Your task to perform on an android device: turn off notifications settings in the gmail app Image 0: 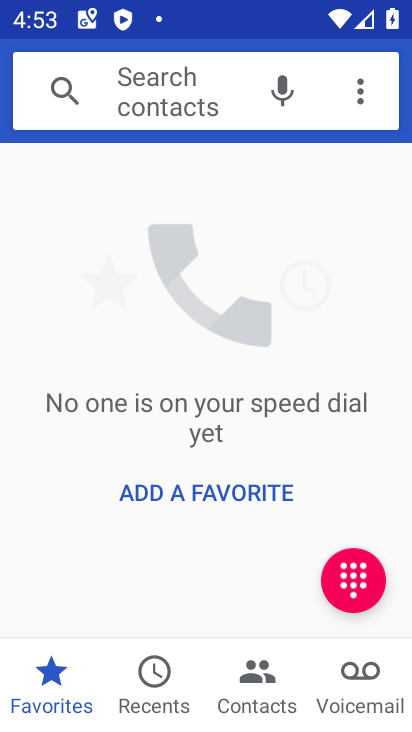
Step 0: press back button
Your task to perform on an android device: turn off notifications settings in the gmail app Image 1: 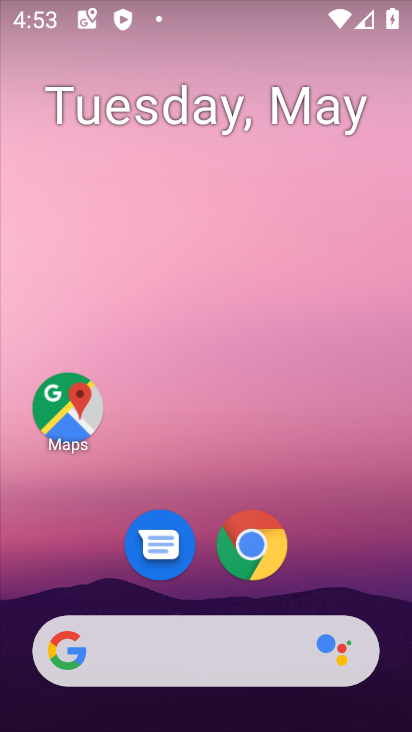
Step 1: drag from (363, 572) to (239, 13)
Your task to perform on an android device: turn off notifications settings in the gmail app Image 2: 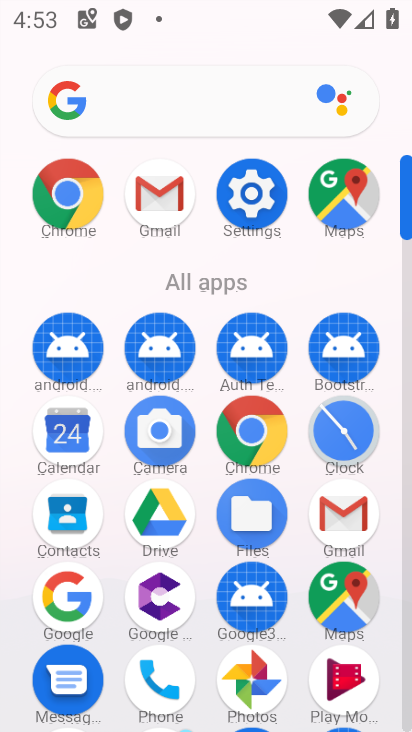
Step 2: drag from (23, 621) to (29, 276)
Your task to perform on an android device: turn off notifications settings in the gmail app Image 3: 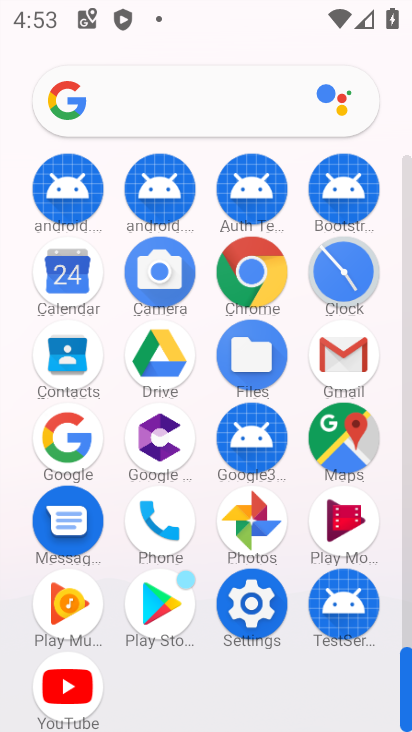
Step 3: click (347, 347)
Your task to perform on an android device: turn off notifications settings in the gmail app Image 4: 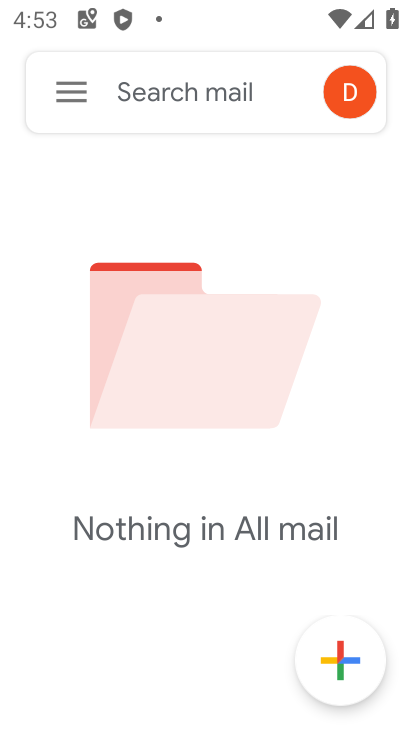
Step 4: click (85, 103)
Your task to perform on an android device: turn off notifications settings in the gmail app Image 5: 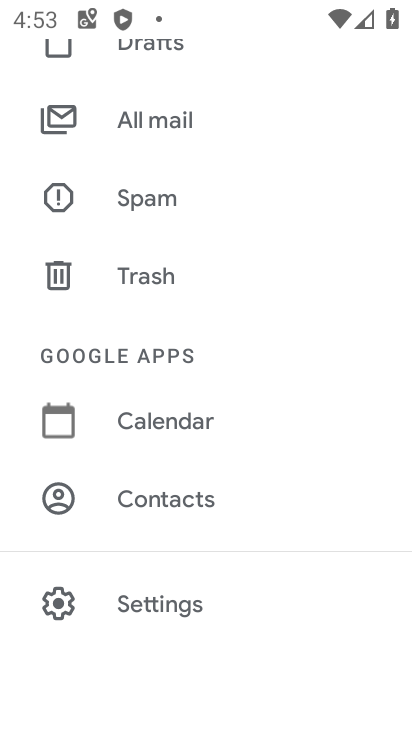
Step 5: click (139, 606)
Your task to perform on an android device: turn off notifications settings in the gmail app Image 6: 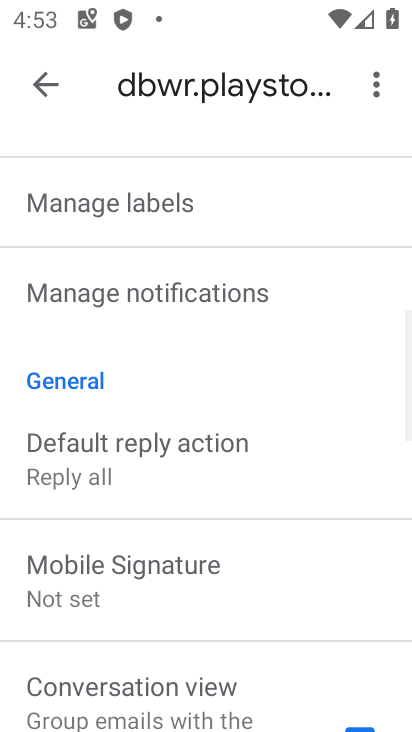
Step 6: drag from (246, 254) to (262, 646)
Your task to perform on an android device: turn off notifications settings in the gmail app Image 7: 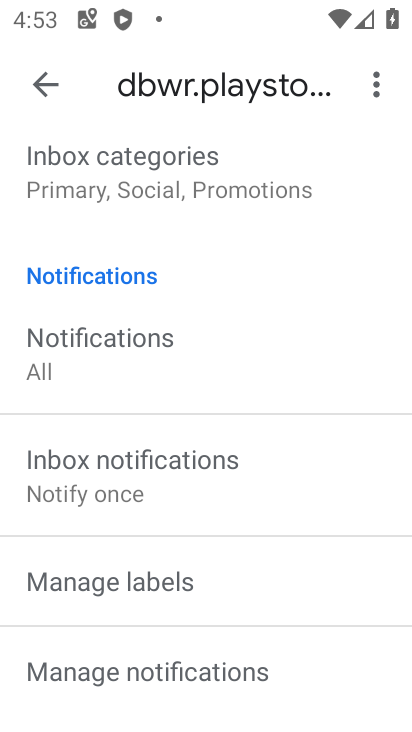
Step 7: drag from (224, 264) to (207, 668)
Your task to perform on an android device: turn off notifications settings in the gmail app Image 8: 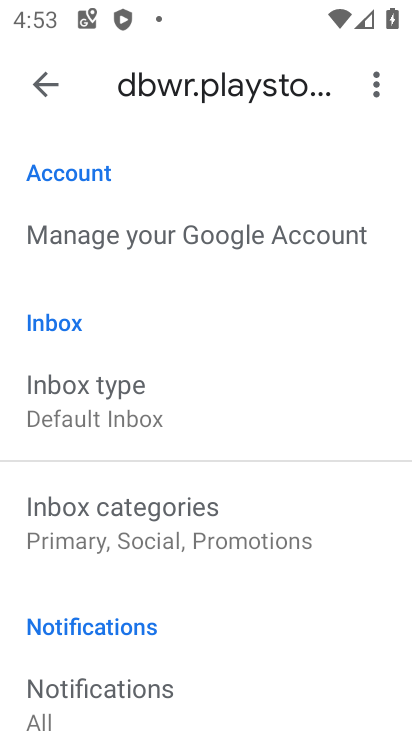
Step 8: drag from (207, 288) to (212, 560)
Your task to perform on an android device: turn off notifications settings in the gmail app Image 9: 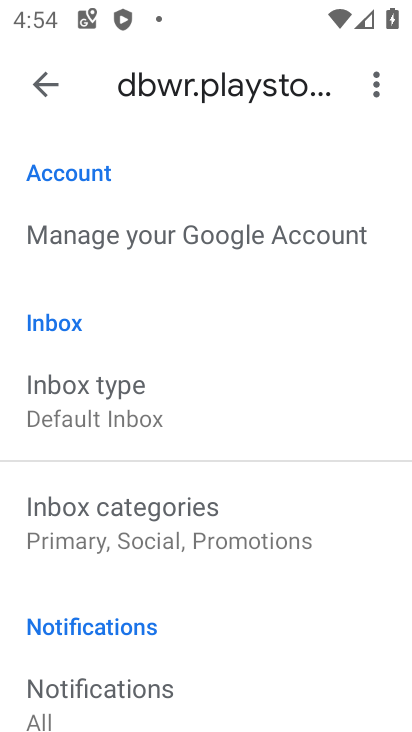
Step 9: drag from (211, 420) to (250, 169)
Your task to perform on an android device: turn off notifications settings in the gmail app Image 10: 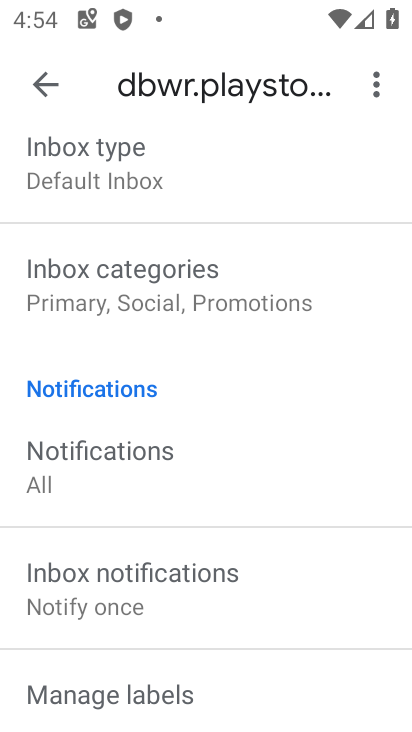
Step 10: drag from (246, 600) to (278, 211)
Your task to perform on an android device: turn off notifications settings in the gmail app Image 11: 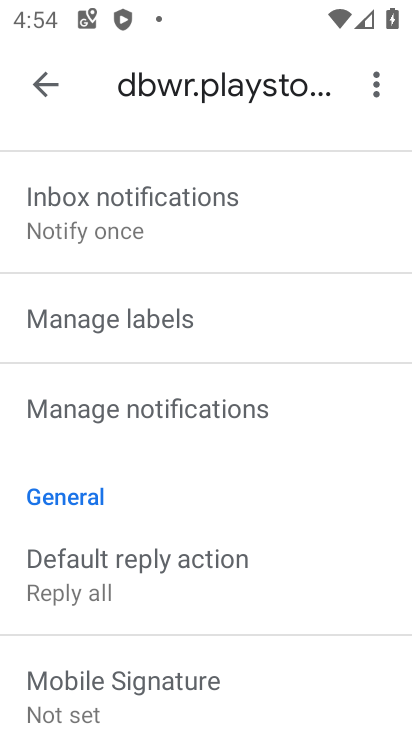
Step 11: drag from (230, 586) to (262, 227)
Your task to perform on an android device: turn off notifications settings in the gmail app Image 12: 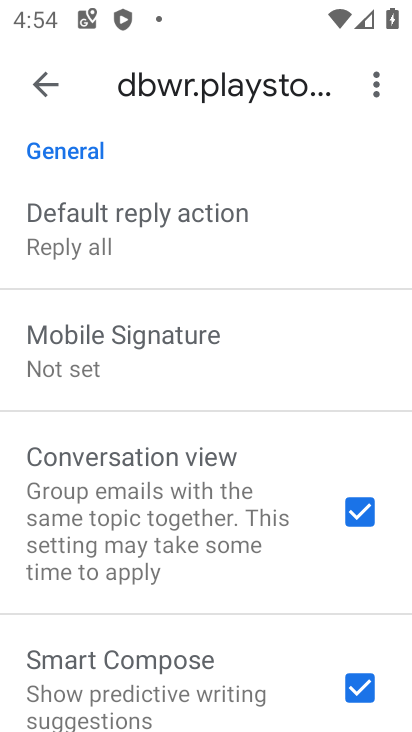
Step 12: drag from (145, 588) to (227, 221)
Your task to perform on an android device: turn off notifications settings in the gmail app Image 13: 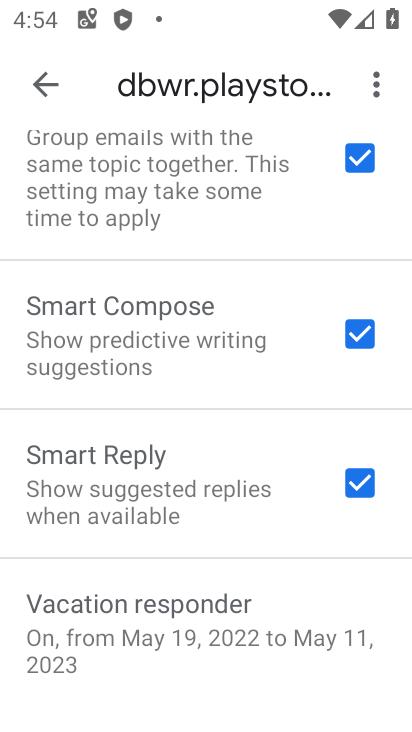
Step 13: drag from (185, 628) to (199, 161)
Your task to perform on an android device: turn off notifications settings in the gmail app Image 14: 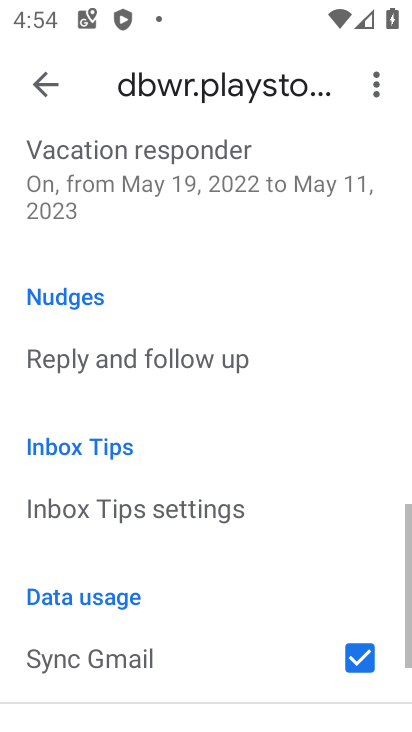
Step 14: drag from (143, 638) to (187, 199)
Your task to perform on an android device: turn off notifications settings in the gmail app Image 15: 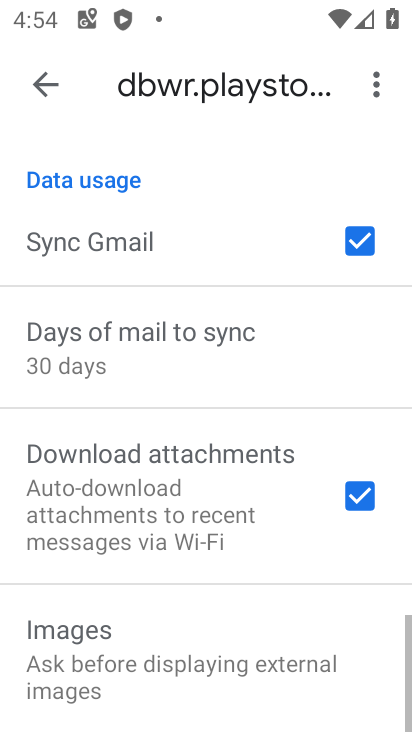
Step 15: drag from (183, 610) to (228, 245)
Your task to perform on an android device: turn off notifications settings in the gmail app Image 16: 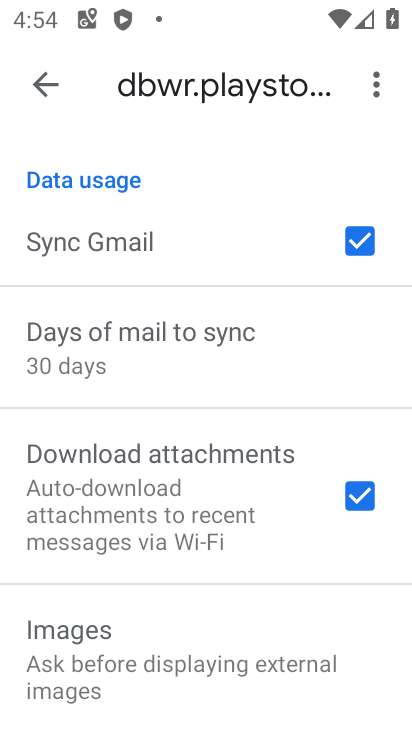
Step 16: drag from (226, 298) to (201, 675)
Your task to perform on an android device: turn off notifications settings in the gmail app Image 17: 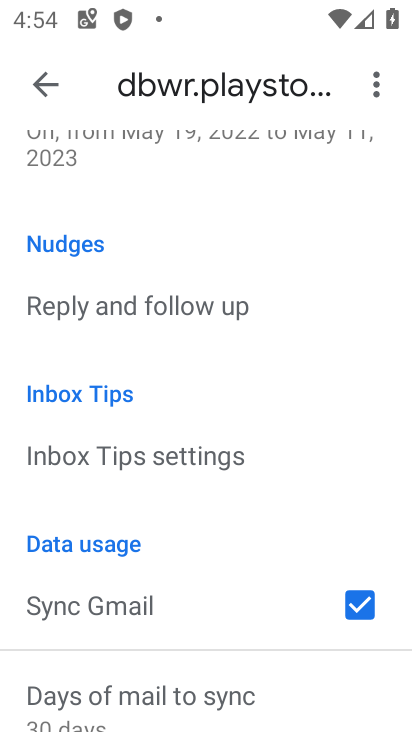
Step 17: drag from (226, 231) to (200, 634)
Your task to perform on an android device: turn off notifications settings in the gmail app Image 18: 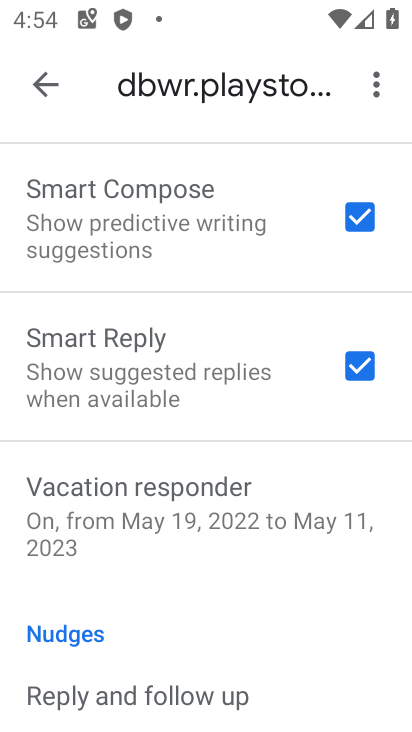
Step 18: drag from (194, 211) to (197, 648)
Your task to perform on an android device: turn off notifications settings in the gmail app Image 19: 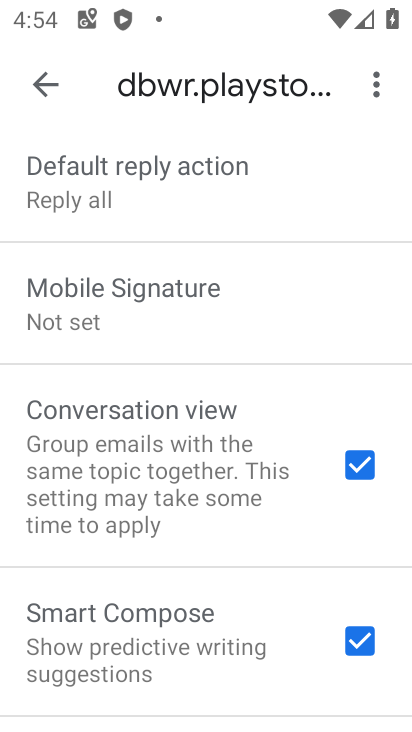
Step 19: drag from (247, 215) to (243, 700)
Your task to perform on an android device: turn off notifications settings in the gmail app Image 20: 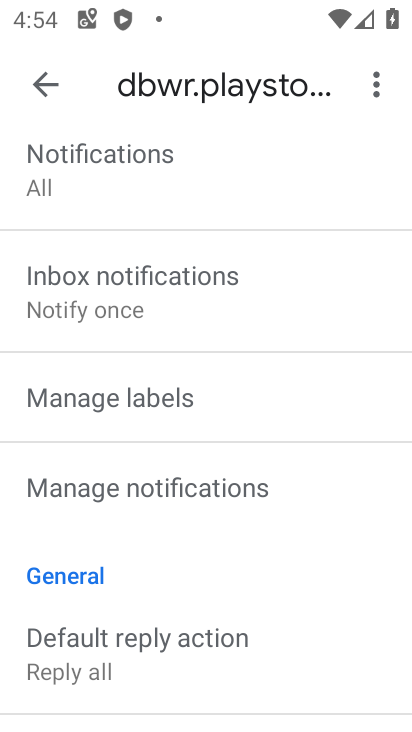
Step 20: click (202, 485)
Your task to perform on an android device: turn off notifications settings in the gmail app Image 21: 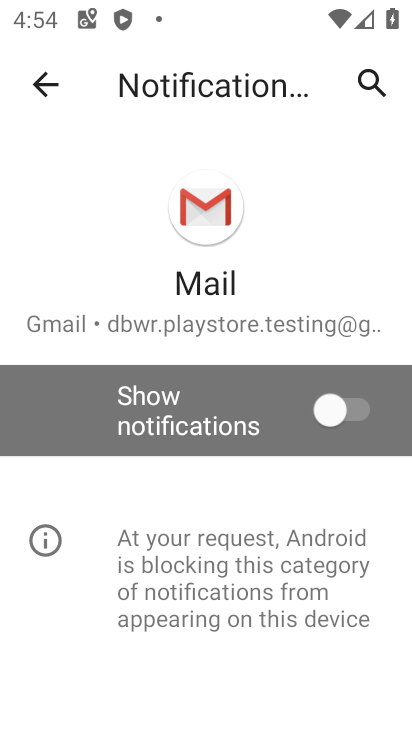
Step 21: task complete